Your task to perform on an android device: Check the settings for the YouTube app Image 0: 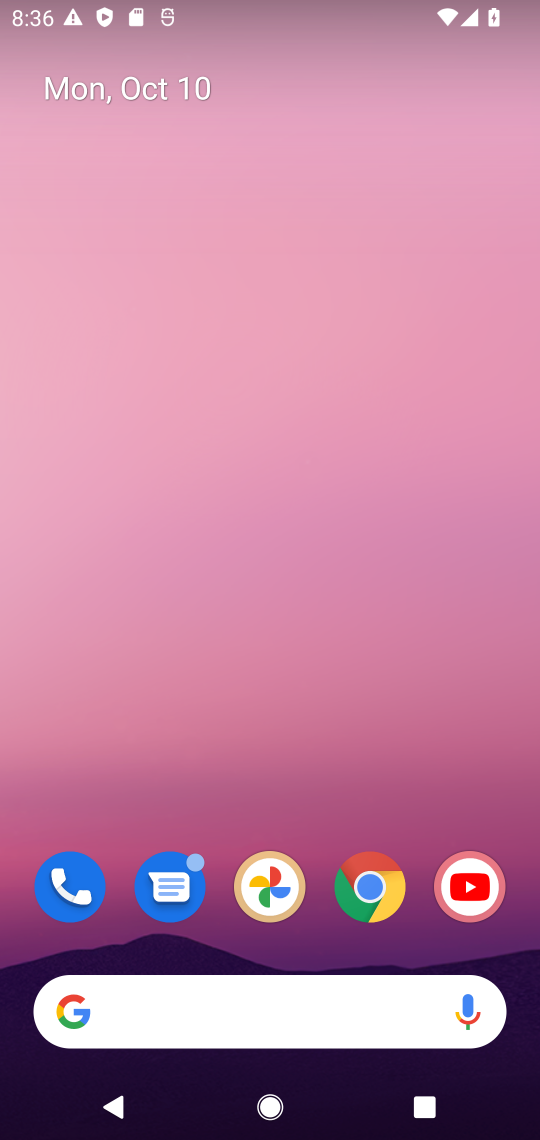
Step 0: click (468, 892)
Your task to perform on an android device: Check the settings for the YouTube app Image 1: 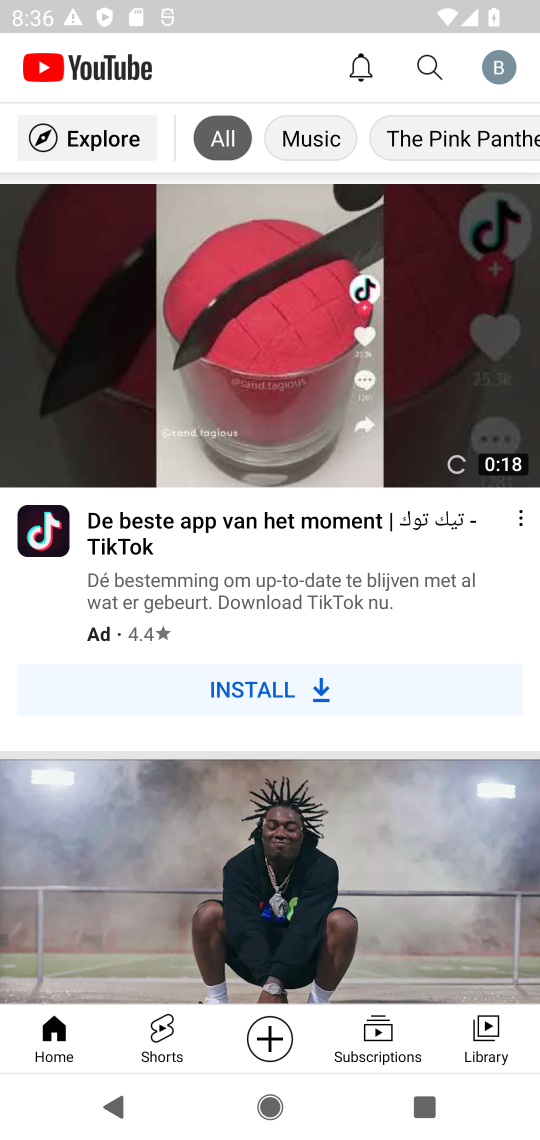
Step 1: click (496, 72)
Your task to perform on an android device: Check the settings for the YouTube app Image 2: 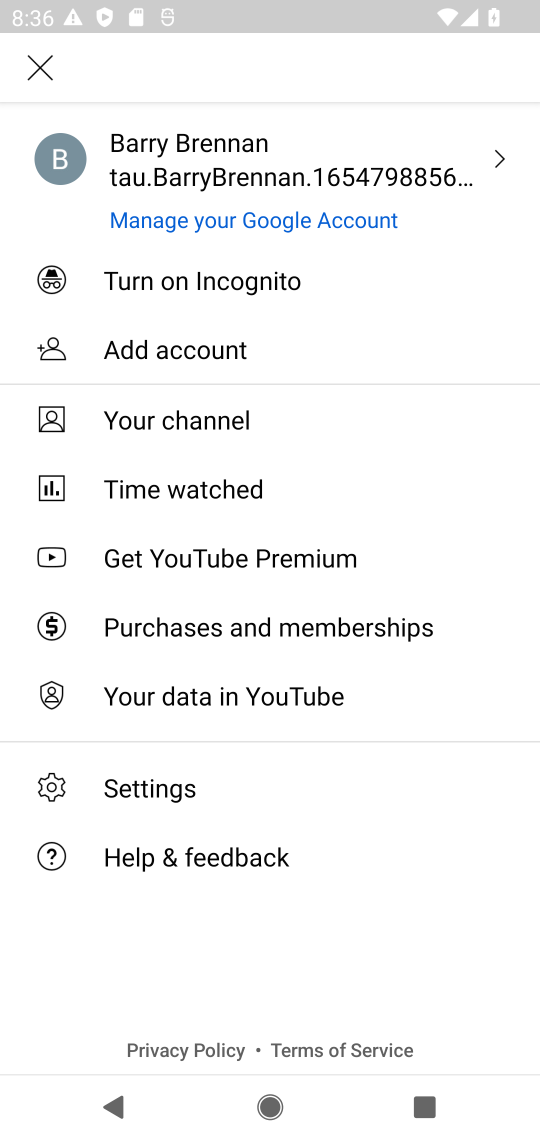
Step 2: click (103, 795)
Your task to perform on an android device: Check the settings for the YouTube app Image 3: 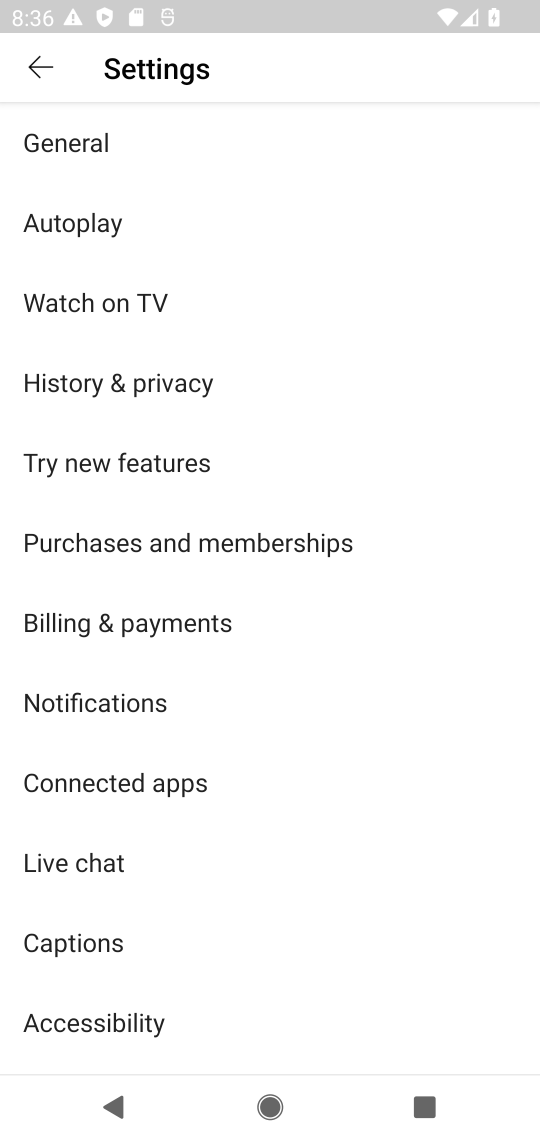
Step 3: task complete